Your task to perform on an android device: Search for Mexican restaurants on Maps Image 0: 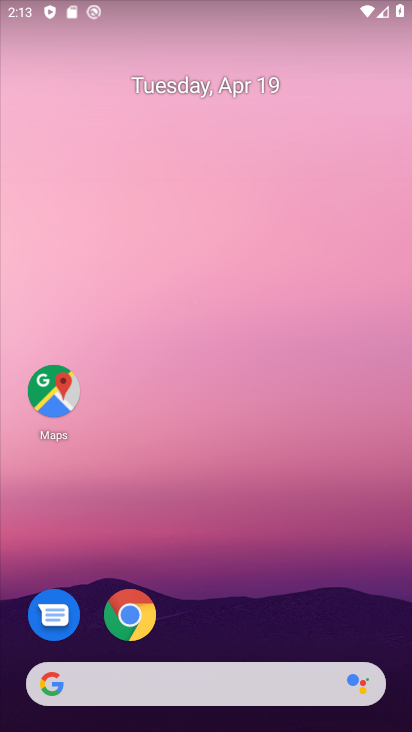
Step 0: click (51, 389)
Your task to perform on an android device: Search for Mexican restaurants on Maps Image 1: 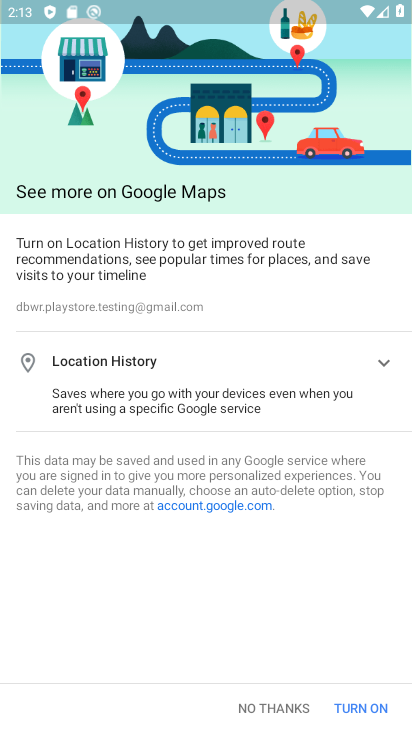
Step 1: click (360, 701)
Your task to perform on an android device: Search for Mexican restaurants on Maps Image 2: 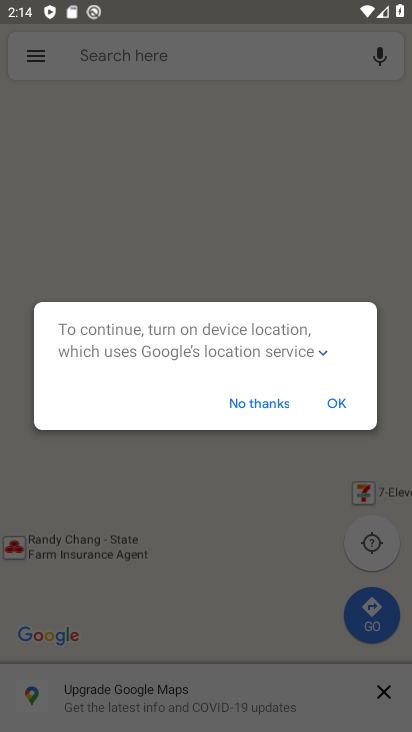
Step 2: click (339, 404)
Your task to perform on an android device: Search for Mexican restaurants on Maps Image 3: 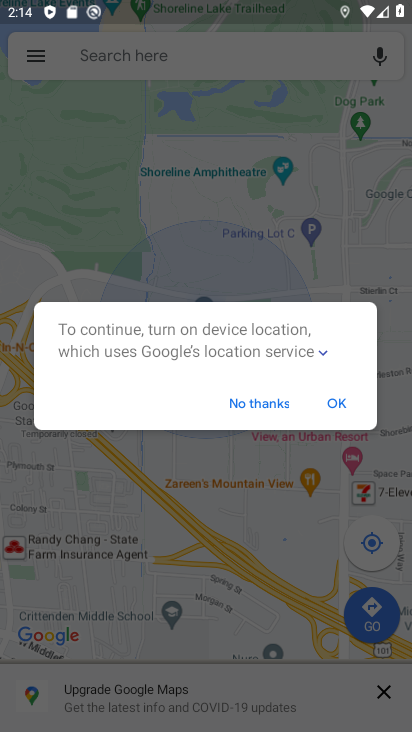
Step 3: click (339, 404)
Your task to perform on an android device: Search for Mexican restaurants on Maps Image 4: 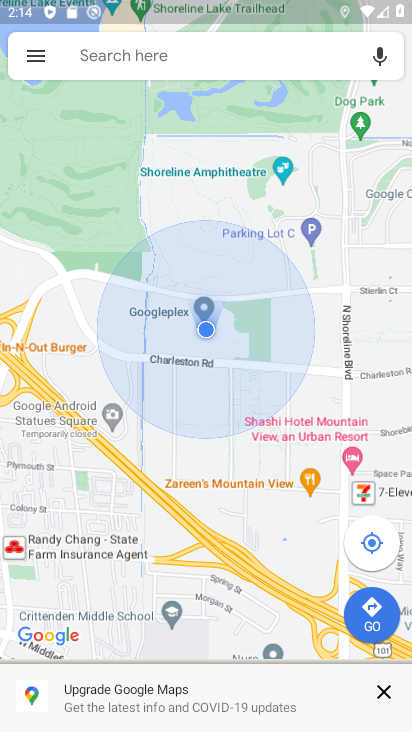
Step 4: click (132, 59)
Your task to perform on an android device: Search for Mexican restaurants on Maps Image 5: 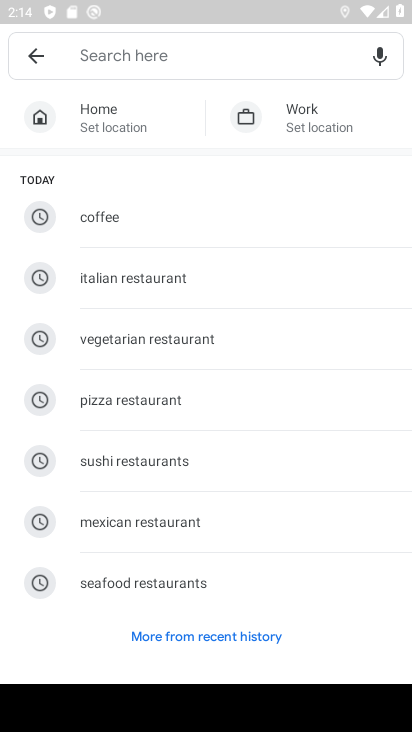
Step 5: type "Mexican restaurants"
Your task to perform on an android device: Search for Mexican restaurants on Maps Image 6: 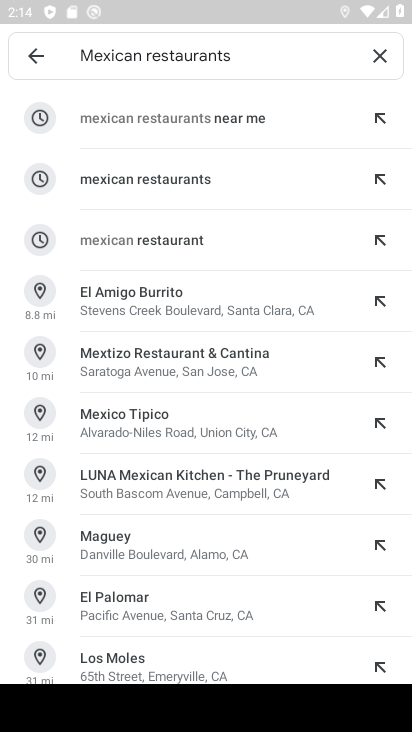
Step 6: click (188, 183)
Your task to perform on an android device: Search for Mexican restaurants on Maps Image 7: 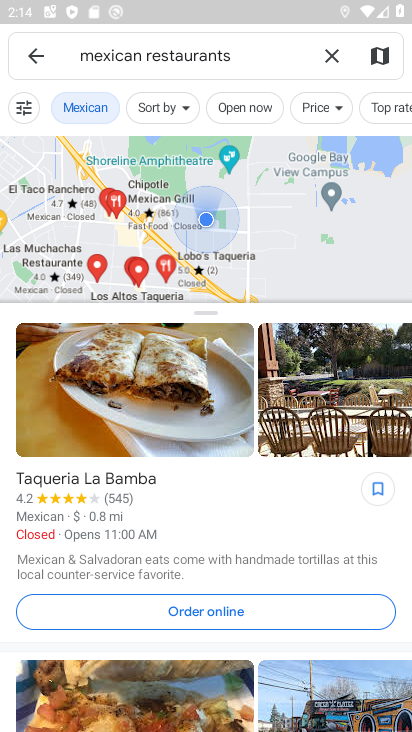
Step 7: task complete